Your task to perform on an android device: What's on my calendar today? Image 0: 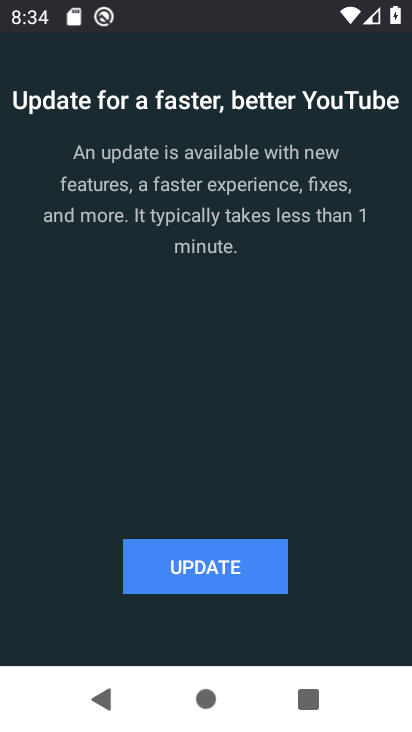
Step 0: press home button
Your task to perform on an android device: What's on my calendar today? Image 1: 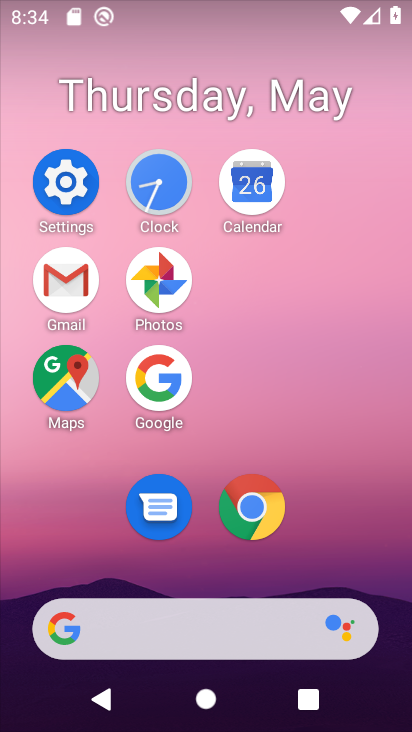
Step 1: click (263, 181)
Your task to perform on an android device: What's on my calendar today? Image 2: 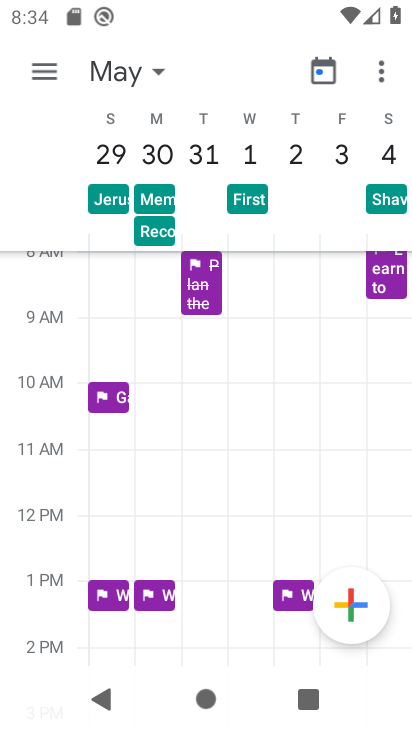
Step 2: drag from (190, 154) to (393, 152)
Your task to perform on an android device: What's on my calendar today? Image 3: 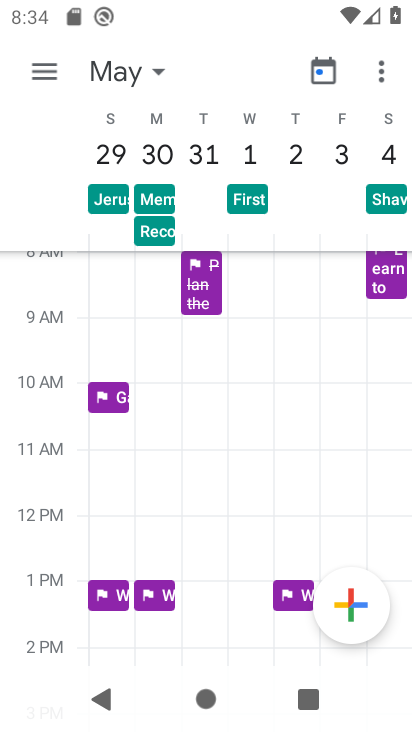
Step 3: drag from (99, 152) to (346, 158)
Your task to perform on an android device: What's on my calendar today? Image 4: 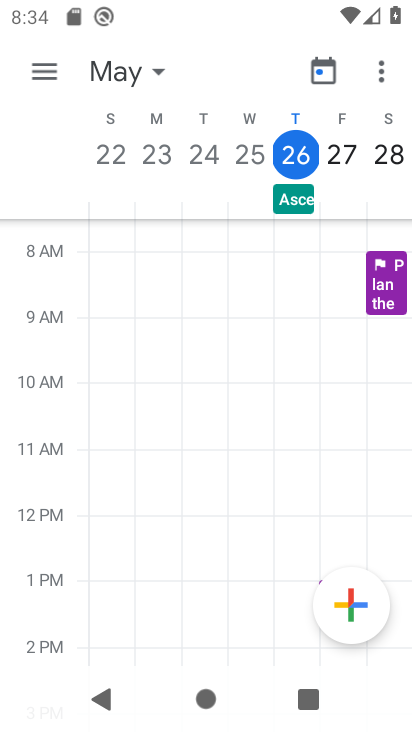
Step 4: click (334, 149)
Your task to perform on an android device: What's on my calendar today? Image 5: 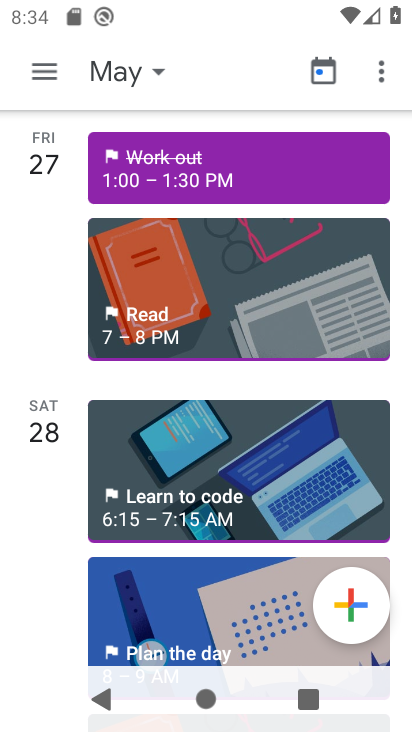
Step 5: task complete